Your task to perform on an android device: Go to Google maps Image 0: 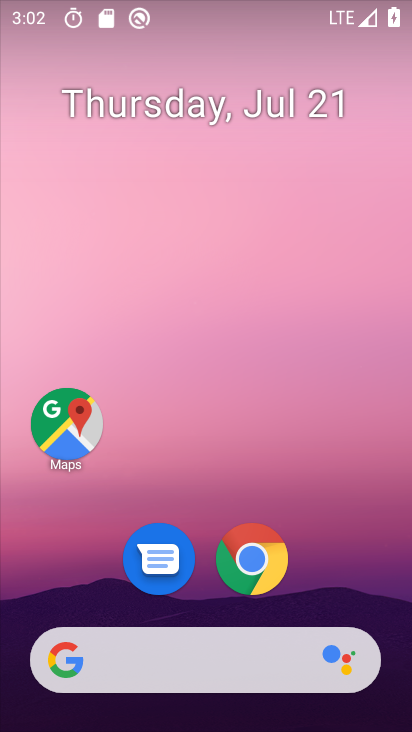
Step 0: drag from (381, 557) to (390, 112)
Your task to perform on an android device: Go to Google maps Image 1: 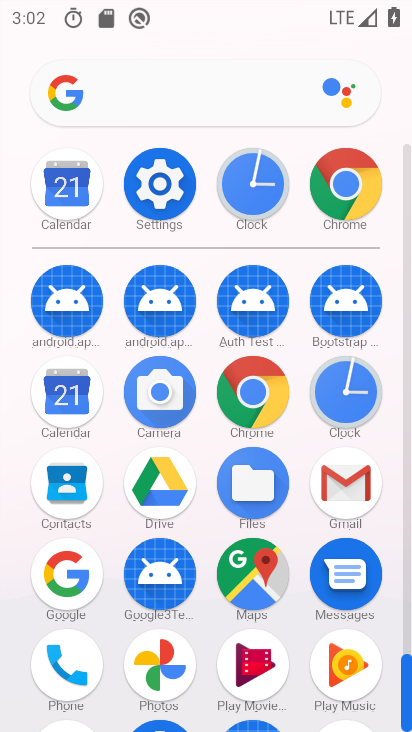
Step 1: click (250, 560)
Your task to perform on an android device: Go to Google maps Image 2: 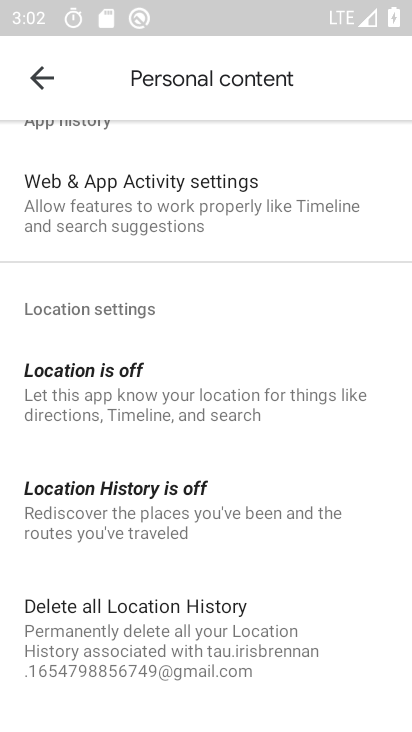
Step 2: task complete